Your task to perform on an android device: Go to Google maps Image 0: 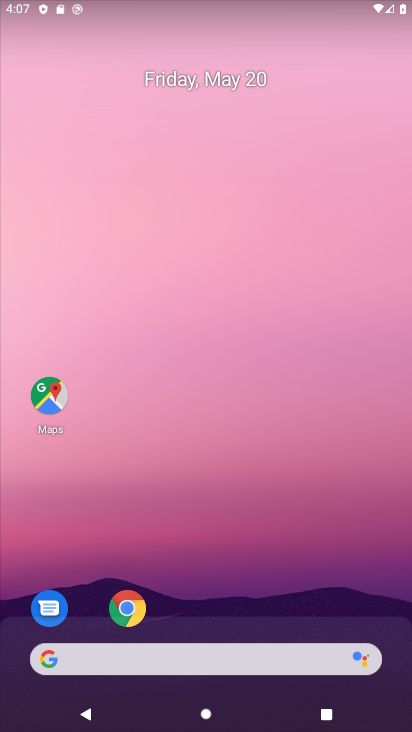
Step 0: drag from (209, 653) to (306, 181)
Your task to perform on an android device: Go to Google maps Image 1: 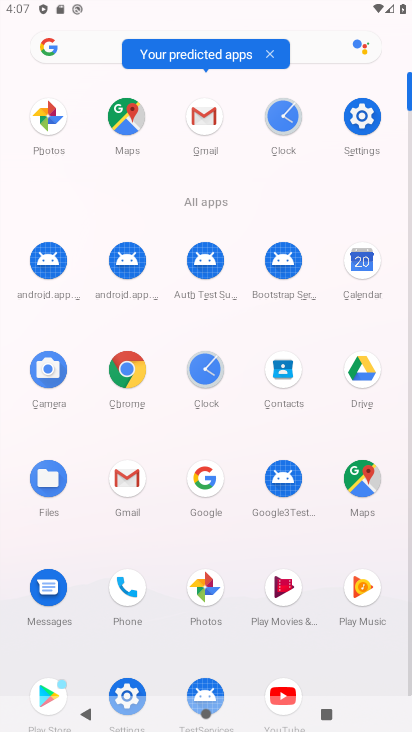
Step 1: click (363, 489)
Your task to perform on an android device: Go to Google maps Image 2: 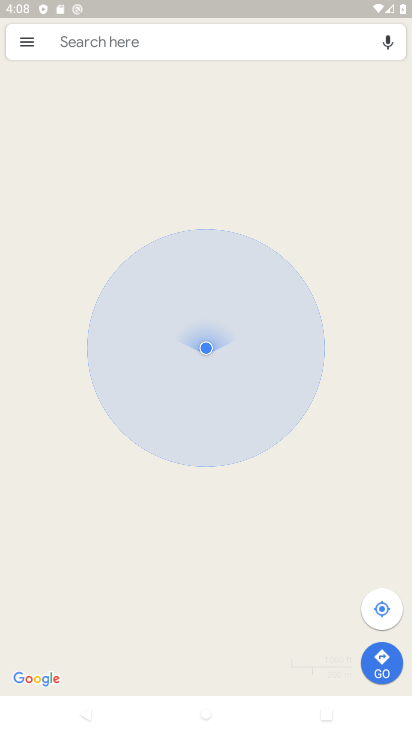
Step 2: task complete